Your task to perform on an android device: open chrome privacy settings Image 0: 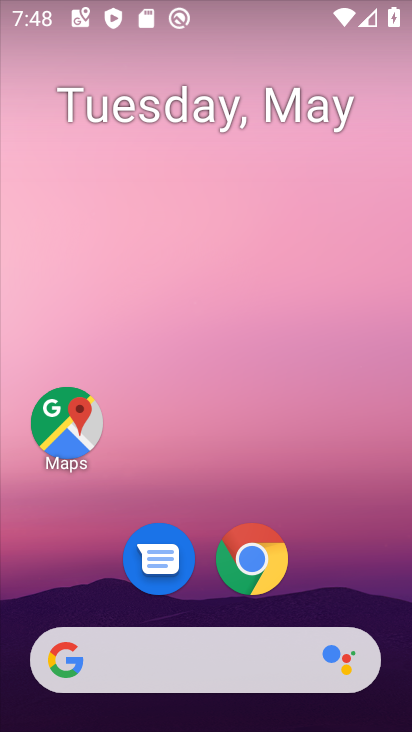
Step 0: drag from (371, 361) to (395, 86)
Your task to perform on an android device: open chrome privacy settings Image 1: 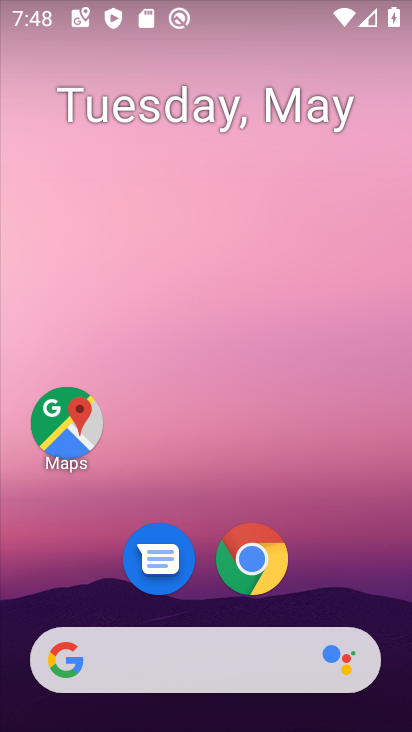
Step 1: drag from (375, 530) to (408, 28)
Your task to perform on an android device: open chrome privacy settings Image 2: 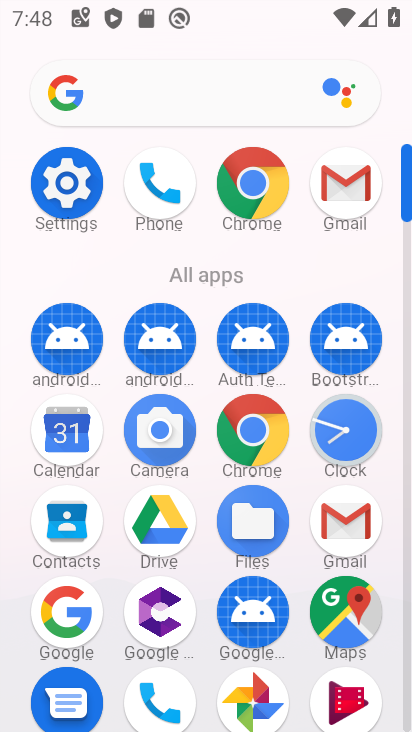
Step 2: click (76, 196)
Your task to perform on an android device: open chrome privacy settings Image 3: 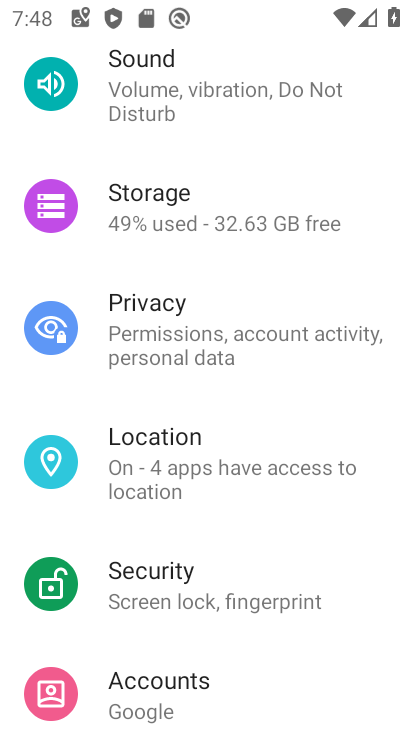
Step 3: click (278, 330)
Your task to perform on an android device: open chrome privacy settings Image 4: 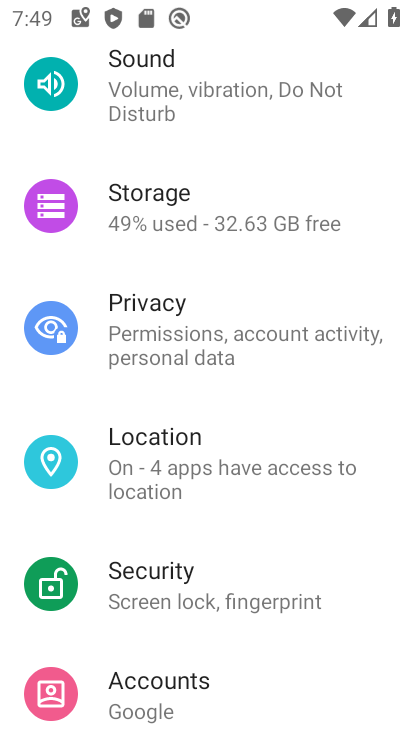
Step 4: click (192, 322)
Your task to perform on an android device: open chrome privacy settings Image 5: 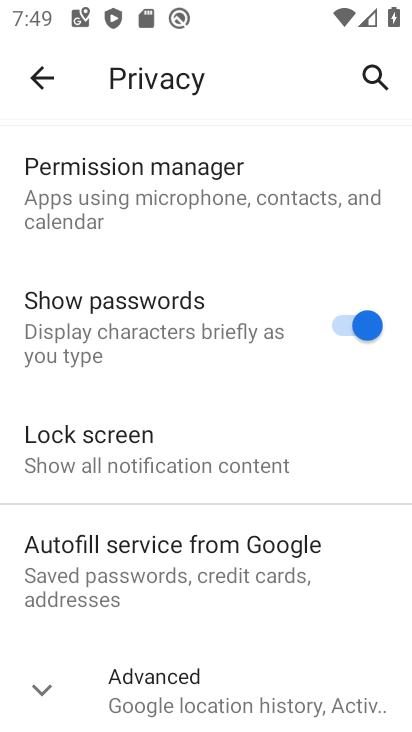
Step 5: task complete